Your task to perform on an android device: Show the shopping cart on target.com. Image 0: 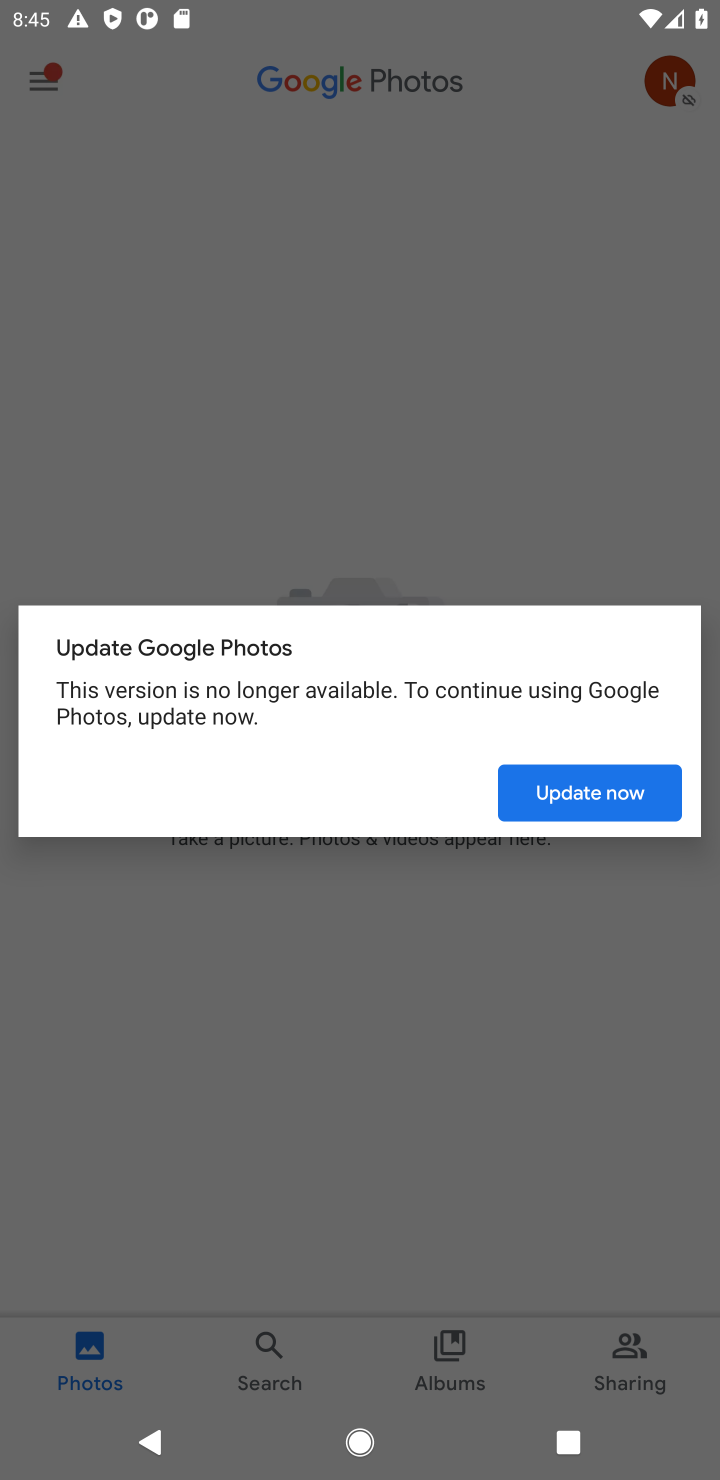
Step 0: press home button
Your task to perform on an android device: Show the shopping cart on target.com. Image 1: 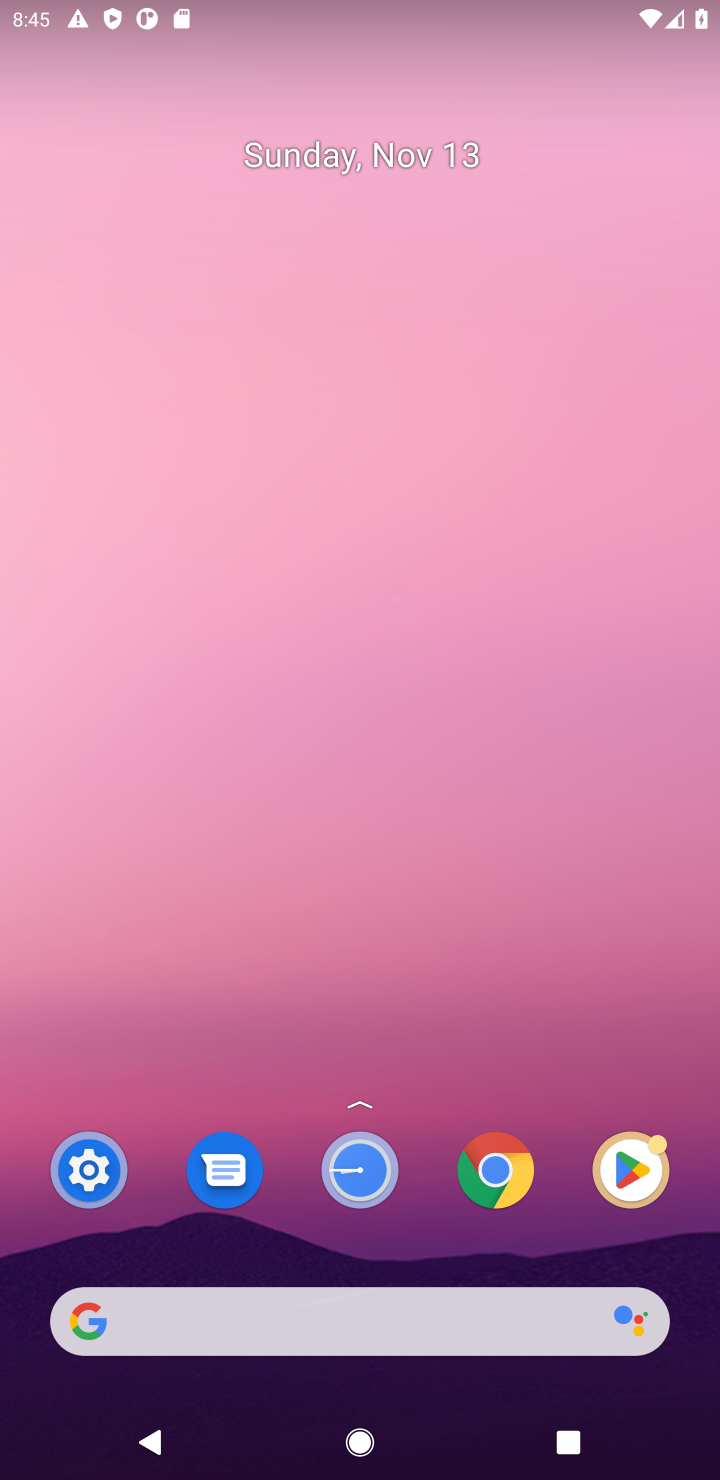
Step 1: click (424, 1329)
Your task to perform on an android device: Show the shopping cart on target.com. Image 2: 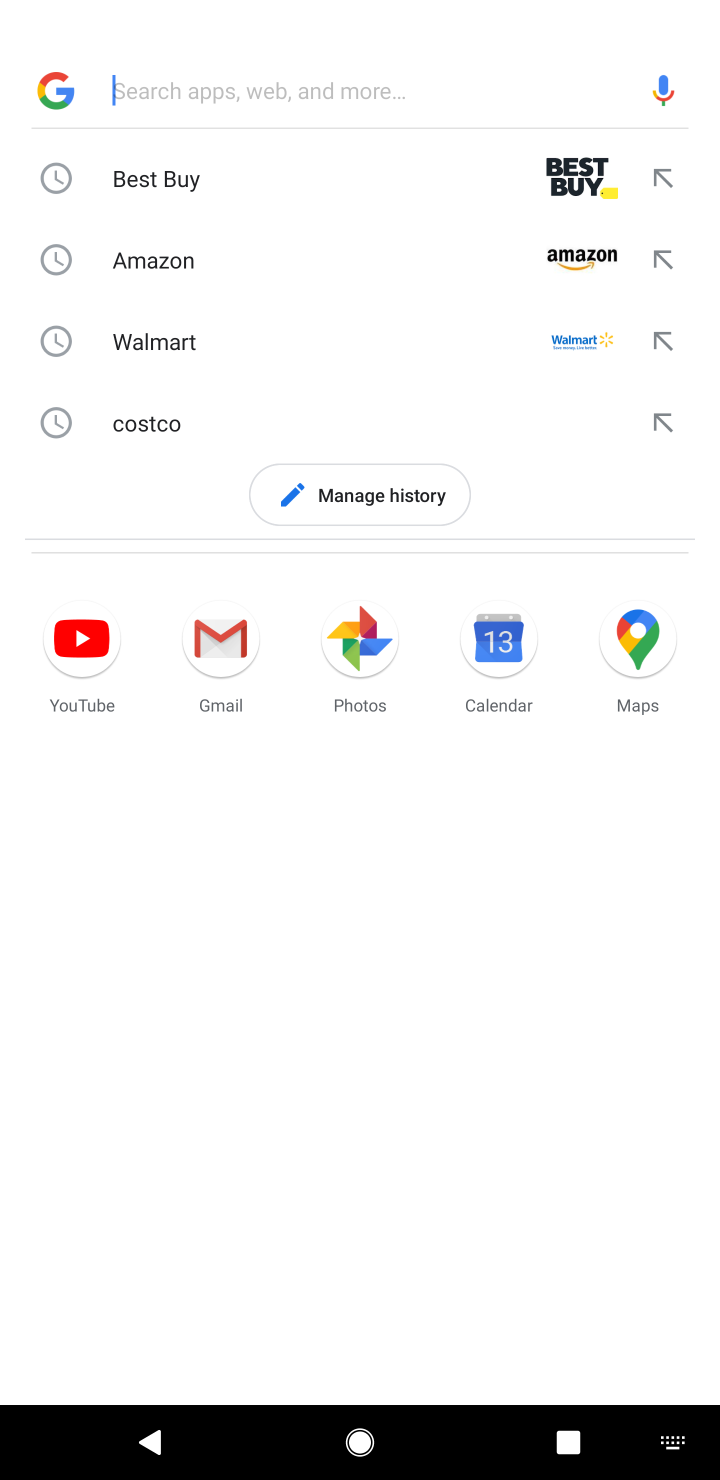
Step 2: type "target.com"
Your task to perform on an android device: Show the shopping cart on target.com. Image 3: 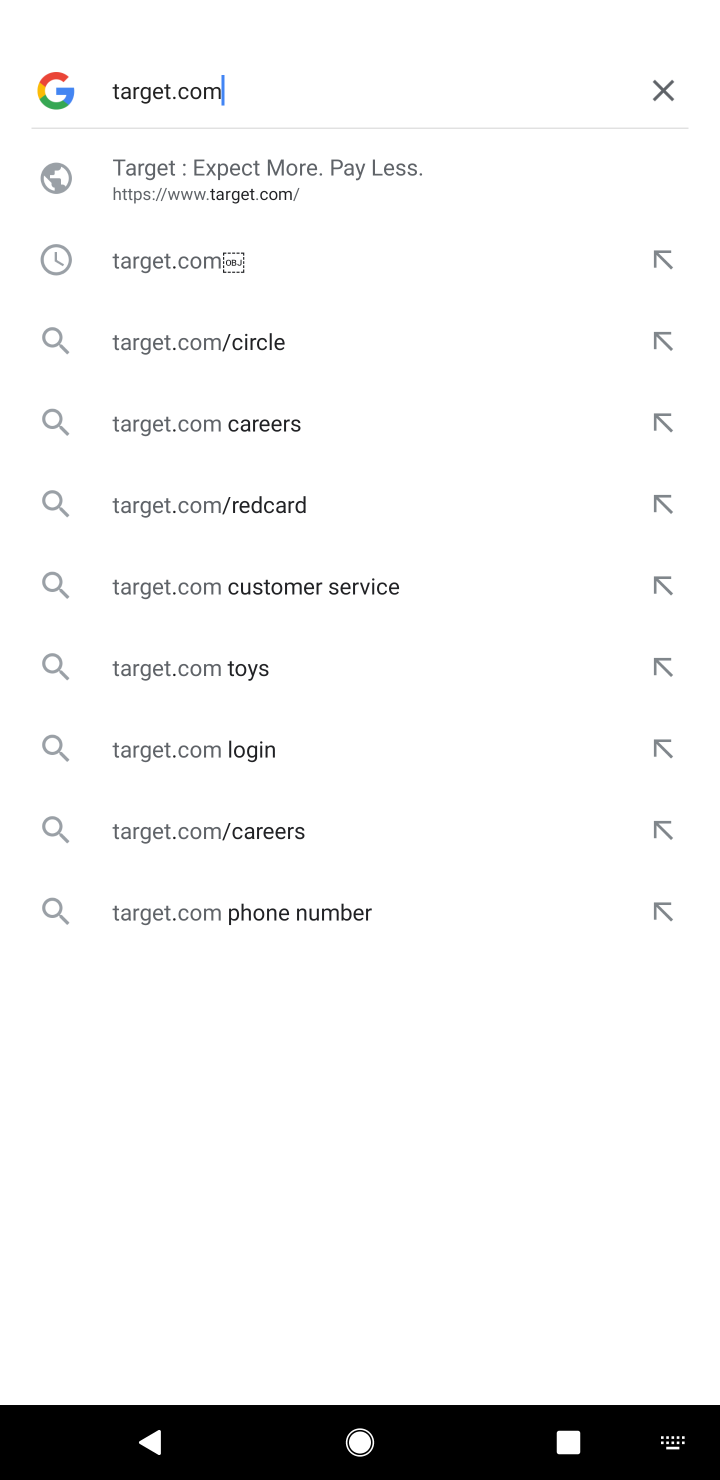
Step 3: click (228, 188)
Your task to perform on an android device: Show the shopping cart on target.com. Image 4: 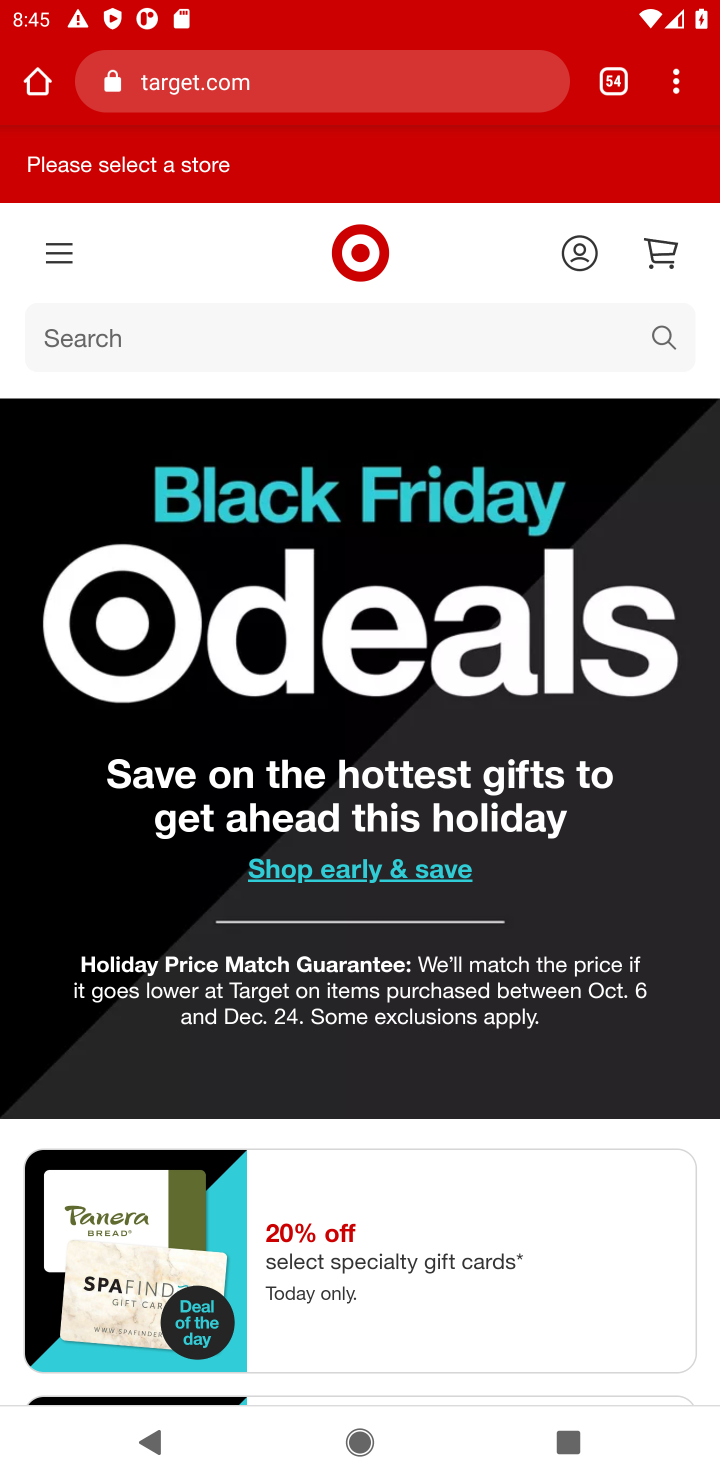
Step 4: click (507, 319)
Your task to perform on an android device: Show the shopping cart on target.com. Image 5: 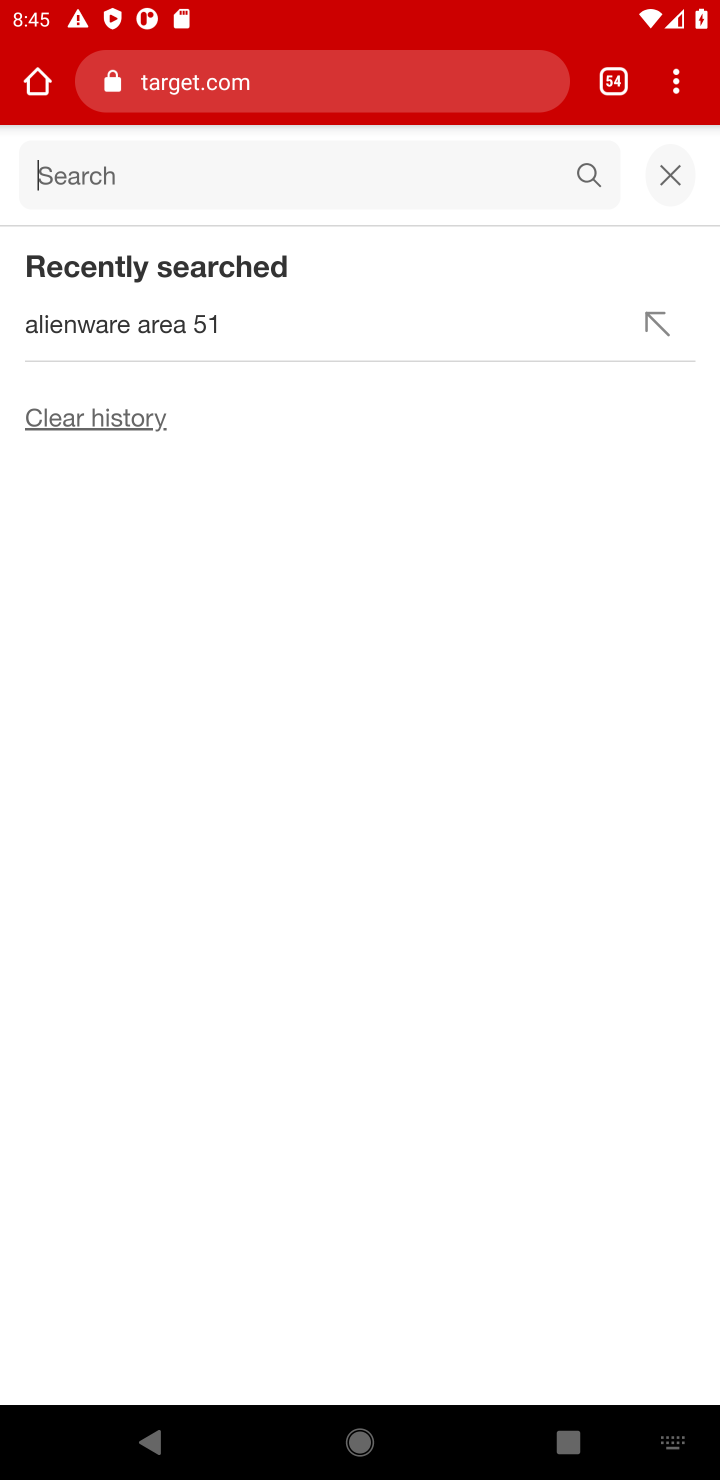
Step 5: task complete